Your task to perform on an android device: Open battery settings Image 0: 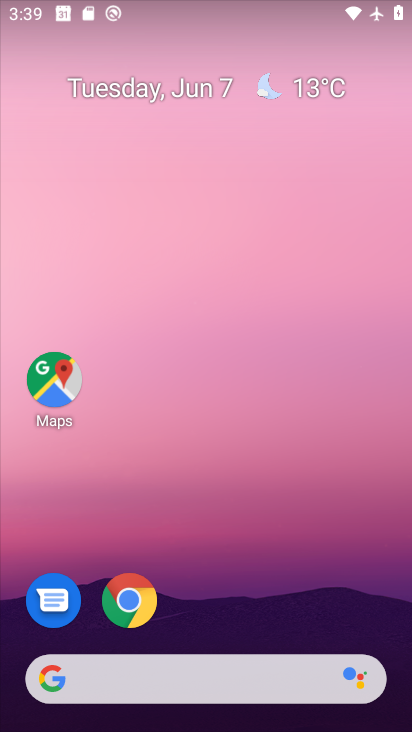
Step 0: drag from (340, 570) to (265, 237)
Your task to perform on an android device: Open battery settings Image 1: 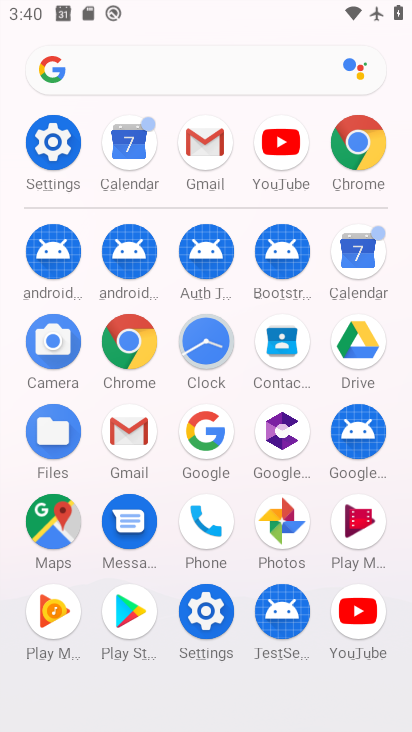
Step 1: click (53, 143)
Your task to perform on an android device: Open battery settings Image 2: 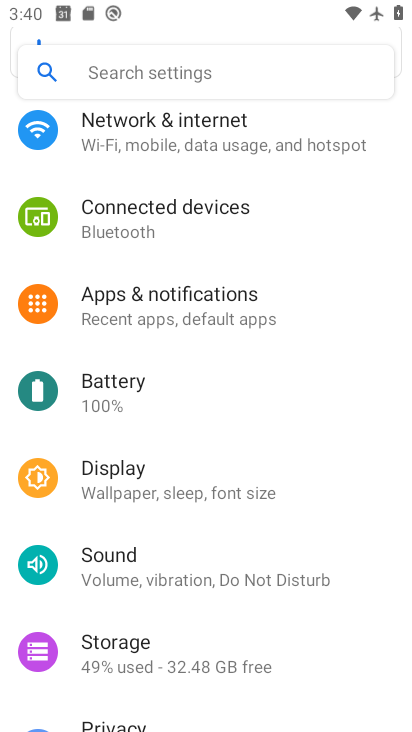
Step 2: click (122, 389)
Your task to perform on an android device: Open battery settings Image 3: 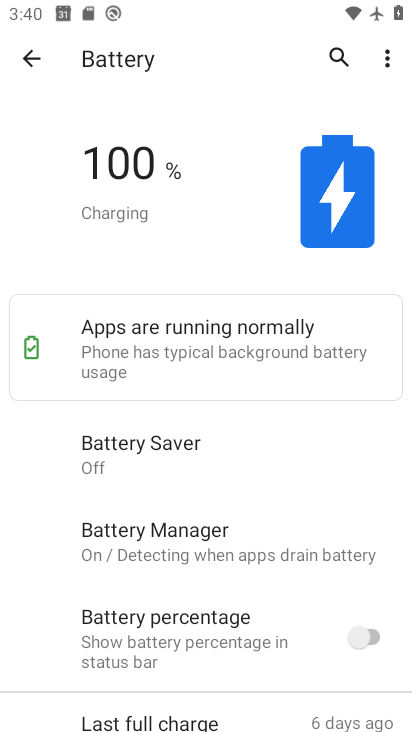
Step 3: task complete